Your task to perform on an android device: snooze an email in the gmail app Image 0: 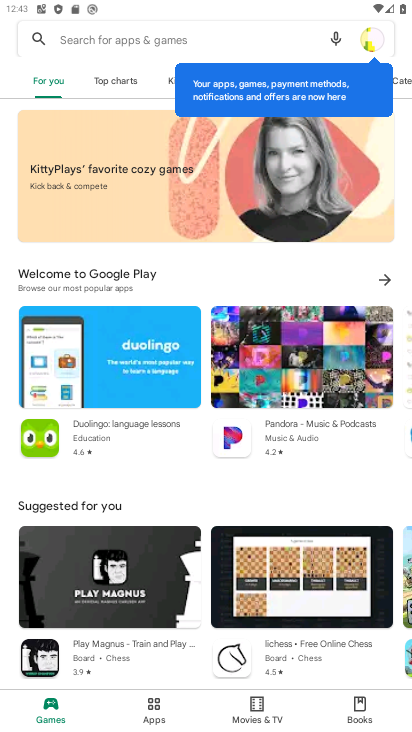
Step 0: press home button
Your task to perform on an android device: snooze an email in the gmail app Image 1: 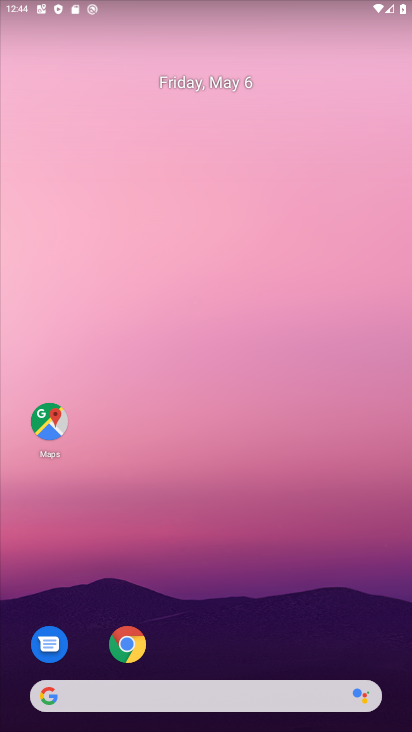
Step 1: drag from (167, 700) to (252, 39)
Your task to perform on an android device: snooze an email in the gmail app Image 2: 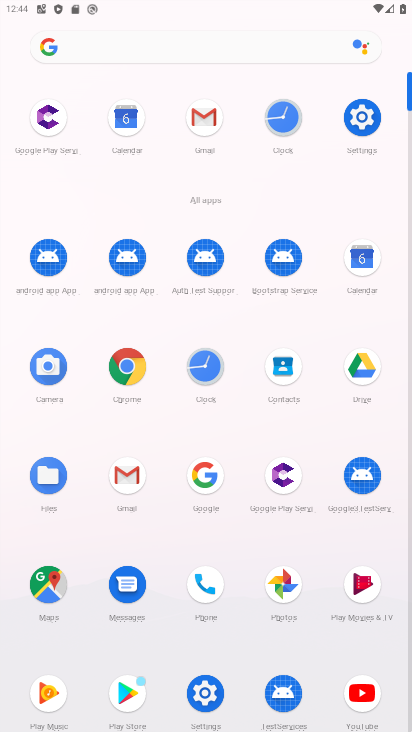
Step 2: click (114, 485)
Your task to perform on an android device: snooze an email in the gmail app Image 3: 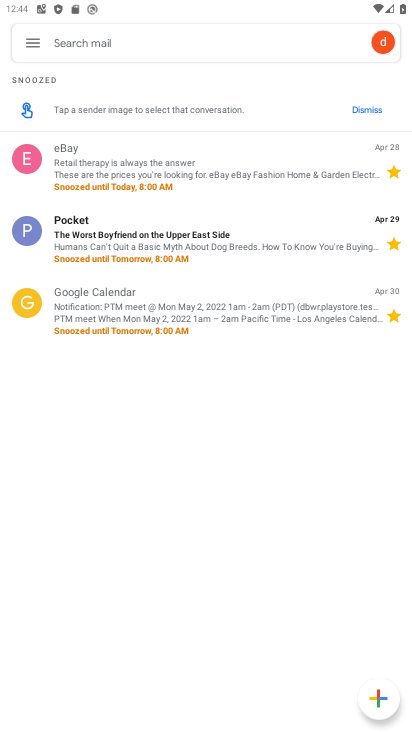
Step 3: click (37, 41)
Your task to perform on an android device: snooze an email in the gmail app Image 4: 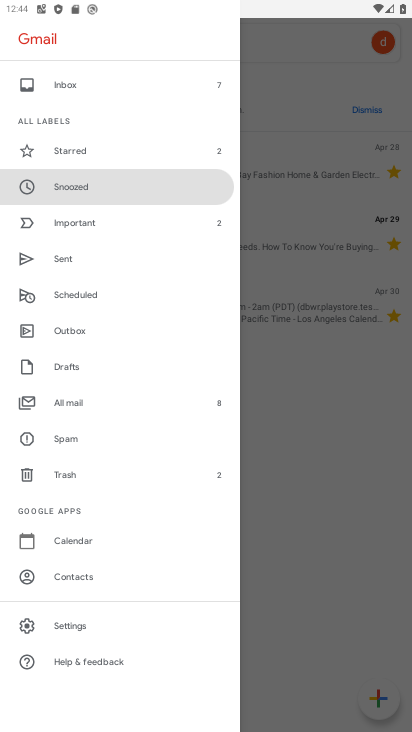
Step 4: click (88, 195)
Your task to perform on an android device: snooze an email in the gmail app Image 5: 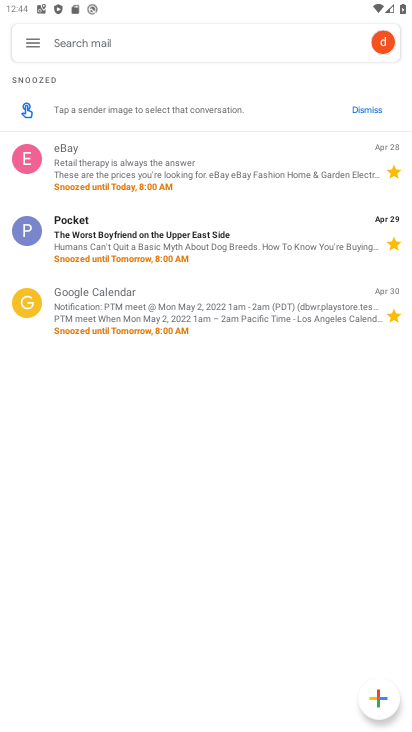
Step 5: click (34, 42)
Your task to perform on an android device: snooze an email in the gmail app Image 6: 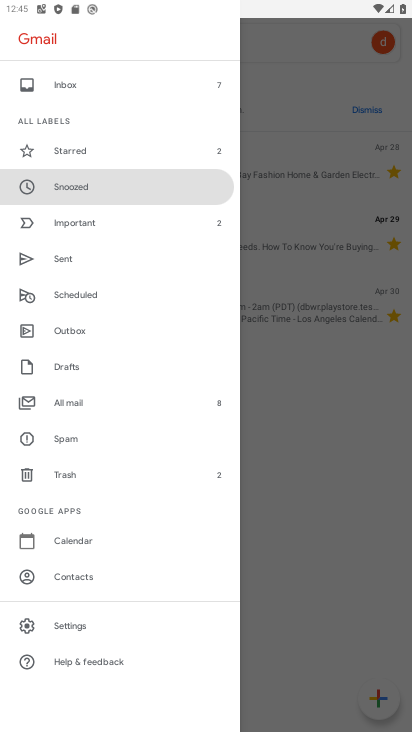
Step 6: click (81, 406)
Your task to perform on an android device: snooze an email in the gmail app Image 7: 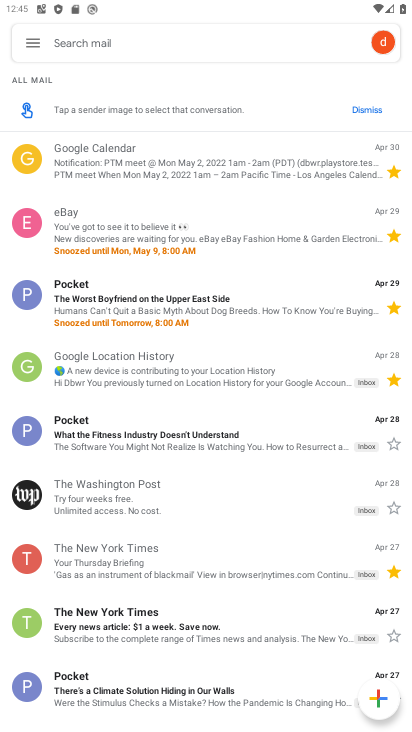
Step 7: click (300, 448)
Your task to perform on an android device: snooze an email in the gmail app Image 8: 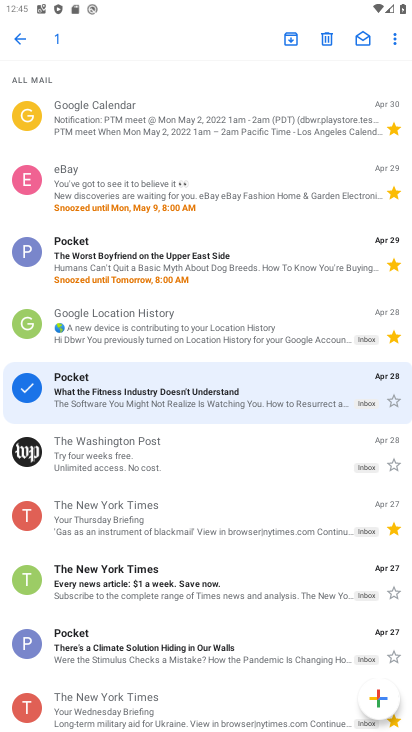
Step 8: click (396, 41)
Your task to perform on an android device: snooze an email in the gmail app Image 9: 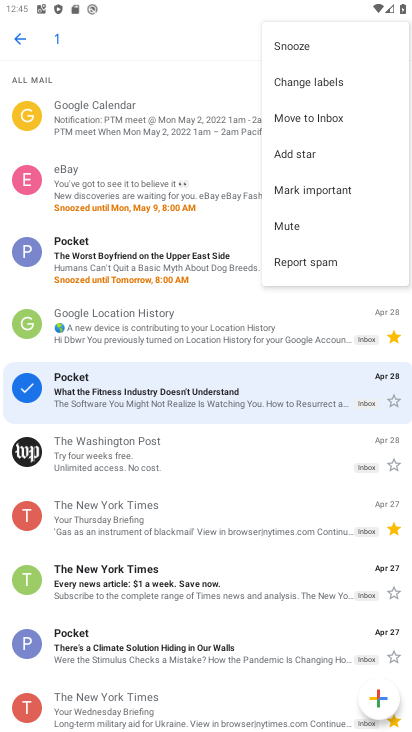
Step 9: click (317, 54)
Your task to perform on an android device: snooze an email in the gmail app Image 10: 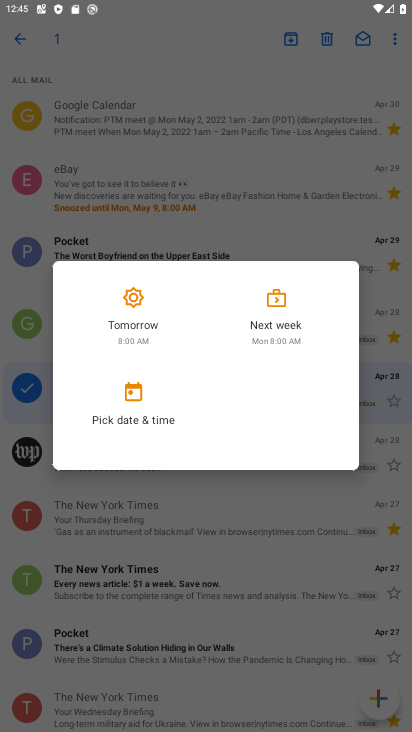
Step 10: click (141, 309)
Your task to perform on an android device: snooze an email in the gmail app Image 11: 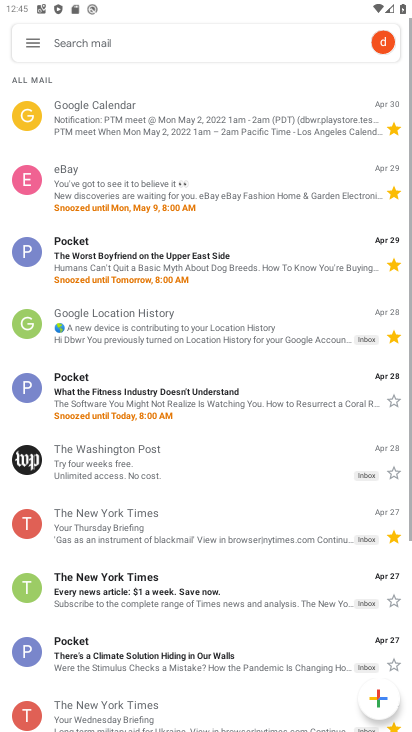
Step 11: task complete